Your task to perform on an android device: set default search engine in the chrome app Image 0: 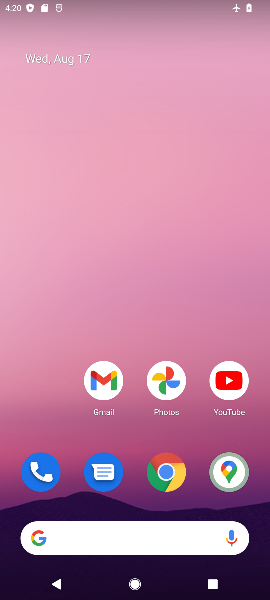
Step 0: click (178, 463)
Your task to perform on an android device: set default search engine in the chrome app Image 1: 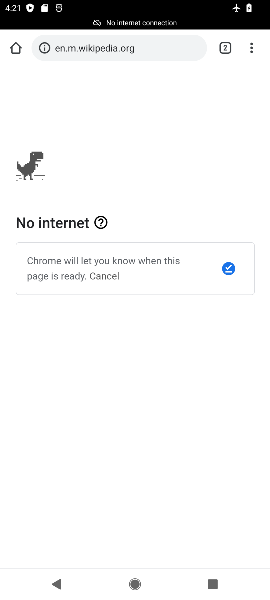
Step 1: click (249, 51)
Your task to perform on an android device: set default search engine in the chrome app Image 2: 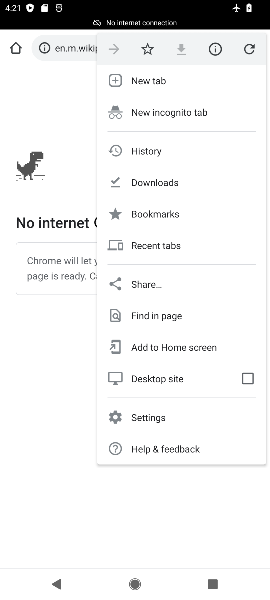
Step 2: click (158, 408)
Your task to perform on an android device: set default search engine in the chrome app Image 3: 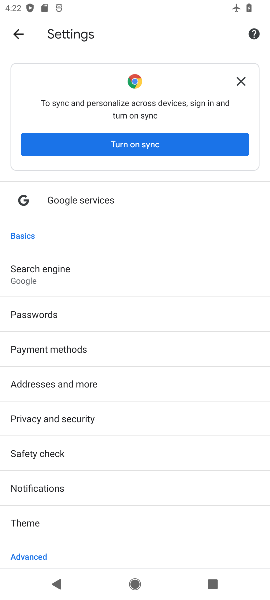
Step 3: click (76, 274)
Your task to perform on an android device: set default search engine in the chrome app Image 4: 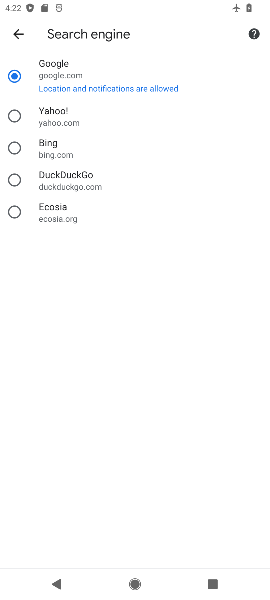
Step 4: task complete